Your task to perform on an android device: set an alarm Image 0: 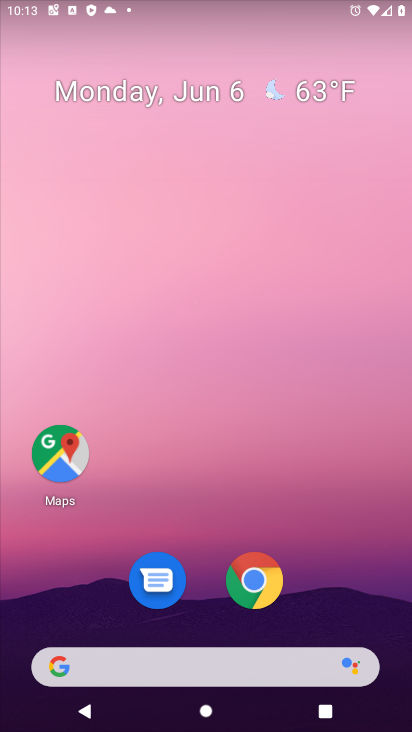
Step 0: drag from (336, 625) to (184, 36)
Your task to perform on an android device: set an alarm Image 1: 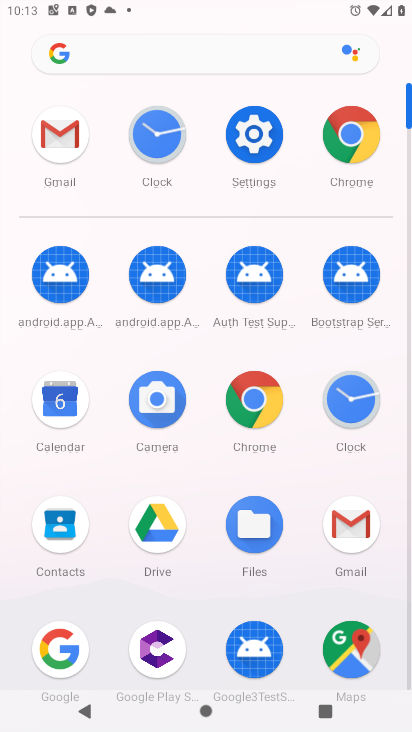
Step 1: click (140, 124)
Your task to perform on an android device: set an alarm Image 2: 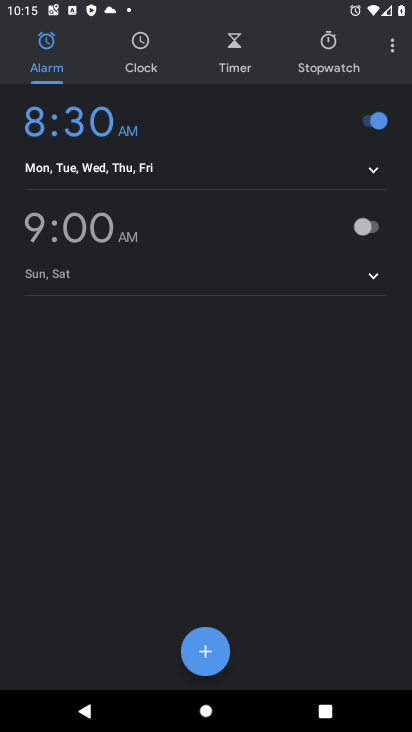
Step 2: task complete